Your task to perform on an android device: turn on translation in the chrome app Image 0: 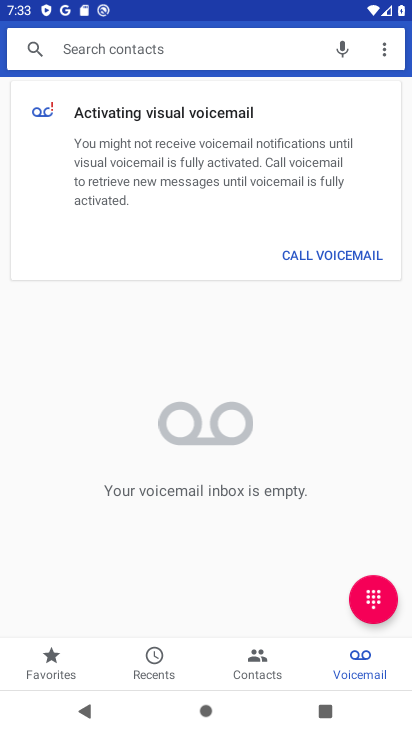
Step 0: press home button
Your task to perform on an android device: turn on translation in the chrome app Image 1: 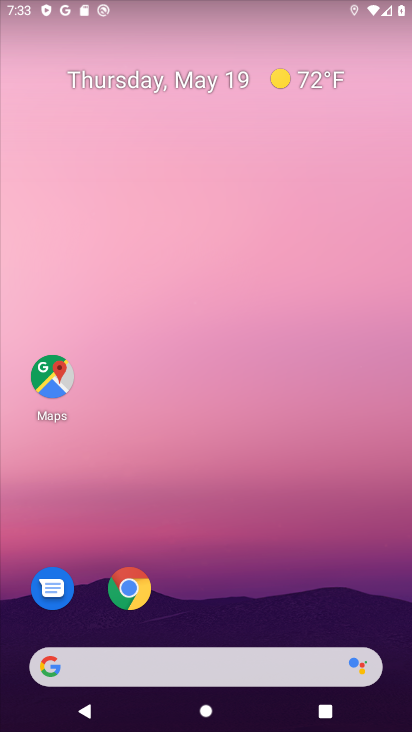
Step 1: click (141, 586)
Your task to perform on an android device: turn on translation in the chrome app Image 2: 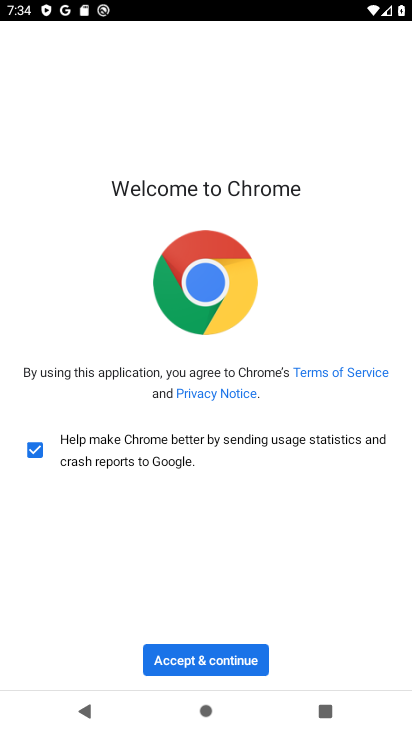
Step 2: click (223, 654)
Your task to perform on an android device: turn on translation in the chrome app Image 3: 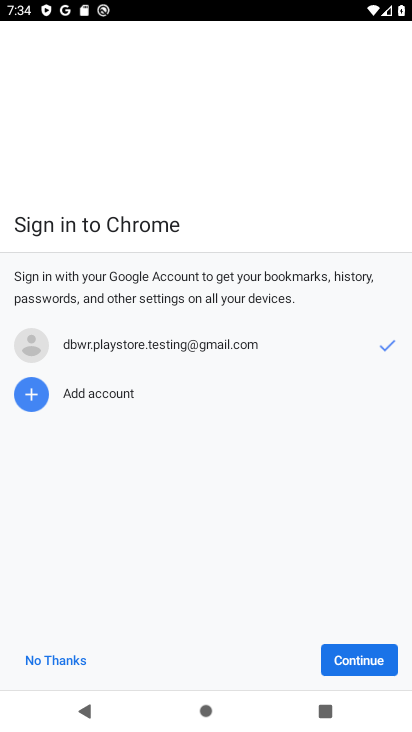
Step 3: click (352, 664)
Your task to perform on an android device: turn on translation in the chrome app Image 4: 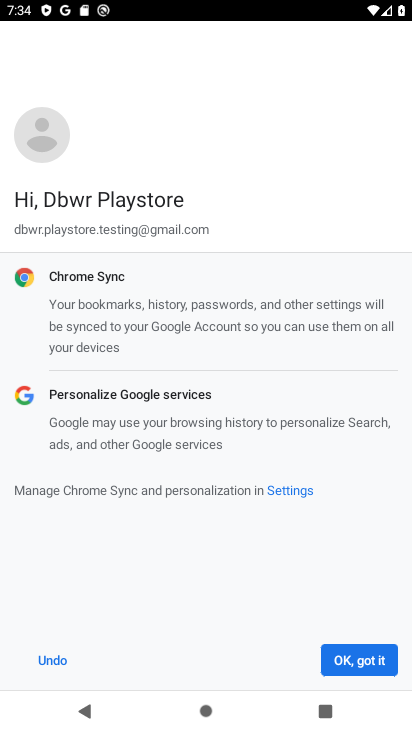
Step 4: click (352, 663)
Your task to perform on an android device: turn on translation in the chrome app Image 5: 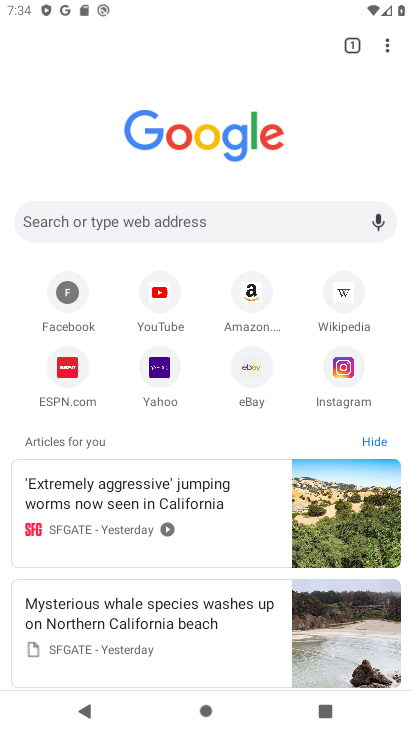
Step 5: click (386, 61)
Your task to perform on an android device: turn on translation in the chrome app Image 6: 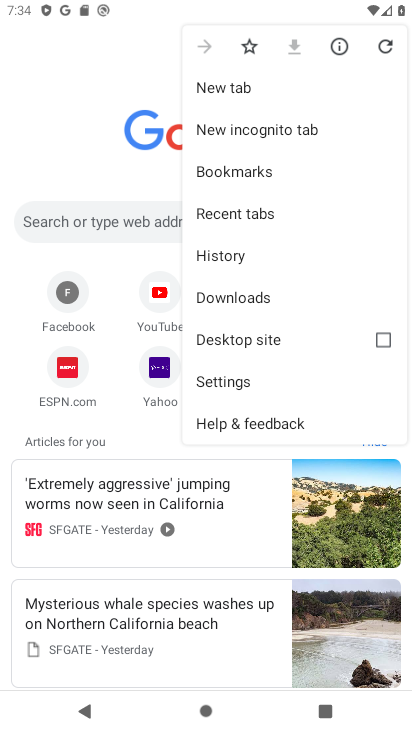
Step 6: click (272, 388)
Your task to perform on an android device: turn on translation in the chrome app Image 7: 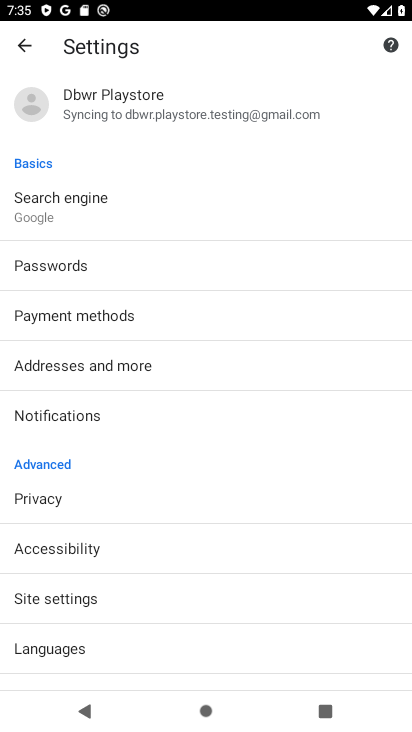
Step 7: click (79, 639)
Your task to perform on an android device: turn on translation in the chrome app Image 8: 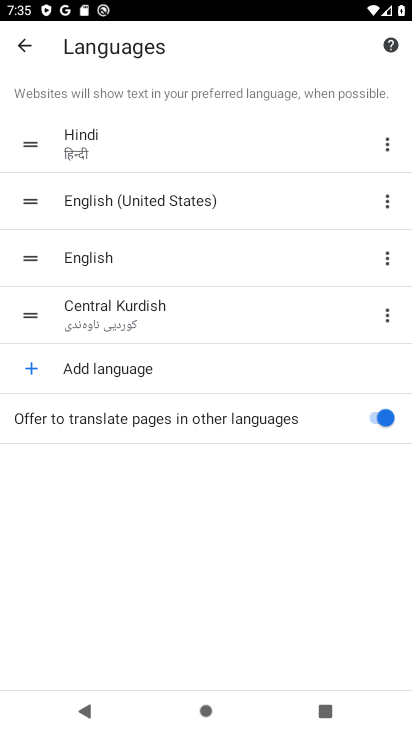
Step 8: task complete